Your task to perform on an android device: Open Google Image 0: 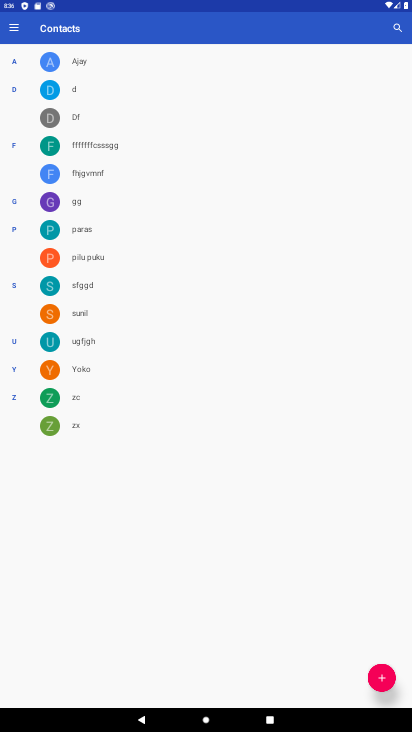
Step 0: press home button
Your task to perform on an android device: Open Google Image 1: 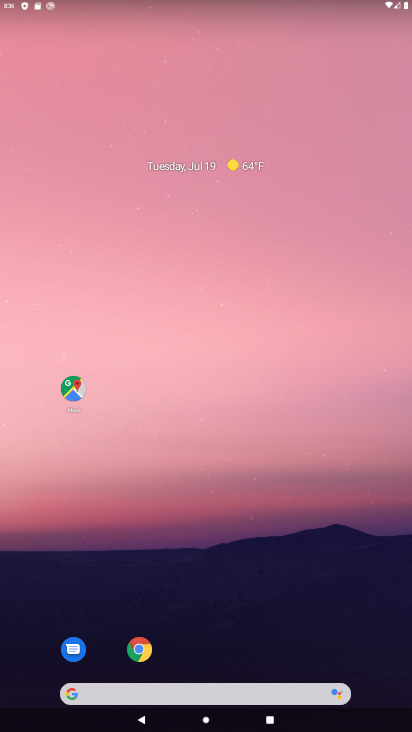
Step 1: drag from (191, 631) to (203, 70)
Your task to perform on an android device: Open Google Image 2: 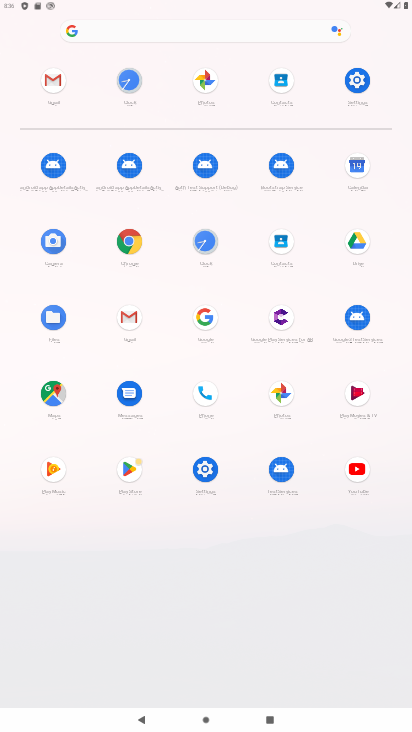
Step 2: click (199, 313)
Your task to perform on an android device: Open Google Image 3: 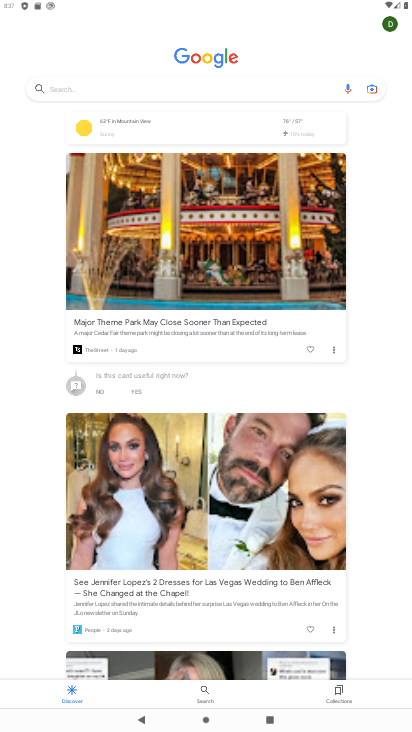
Step 3: task complete